Your task to perform on an android device: Open the Play Movies app and select the watchlist tab. Image 0: 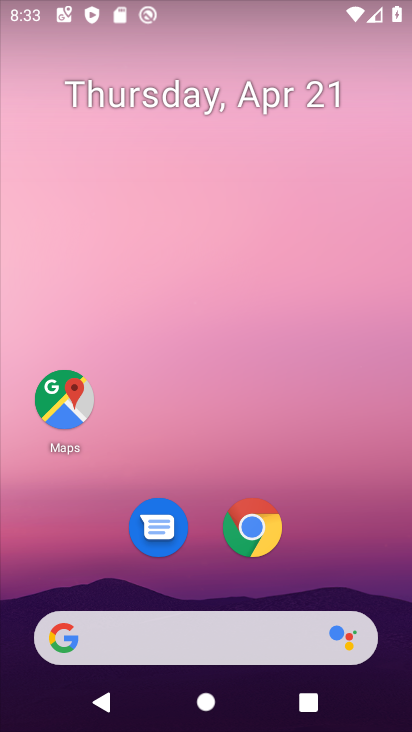
Step 0: drag from (339, 368) to (320, 89)
Your task to perform on an android device: Open the Play Movies app and select the watchlist tab. Image 1: 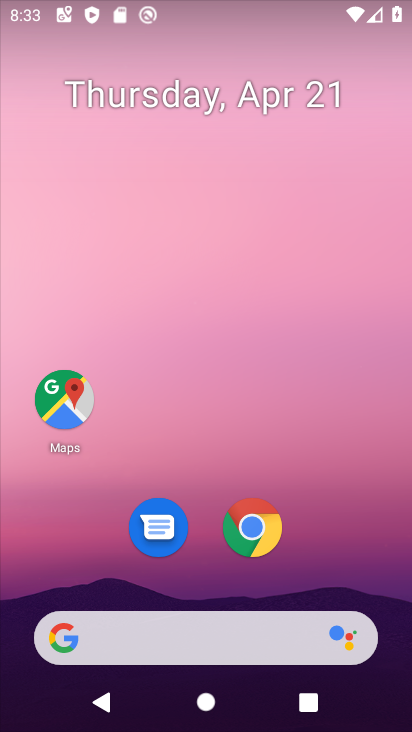
Step 1: drag from (268, 618) to (264, 97)
Your task to perform on an android device: Open the Play Movies app and select the watchlist tab. Image 2: 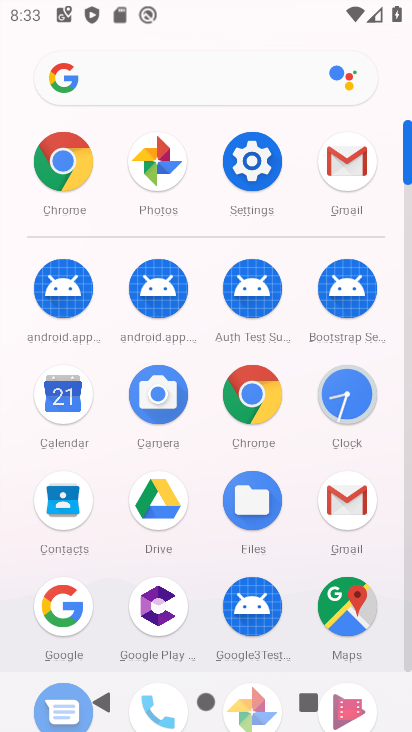
Step 2: drag from (306, 543) to (304, 302)
Your task to perform on an android device: Open the Play Movies app and select the watchlist tab. Image 3: 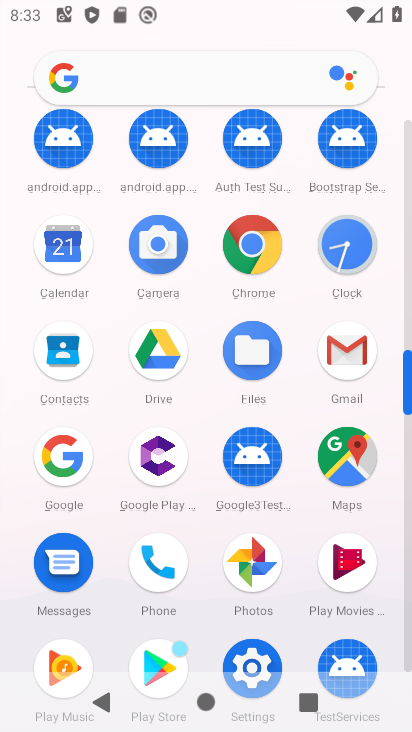
Step 3: drag from (270, 552) to (281, 277)
Your task to perform on an android device: Open the Play Movies app and select the watchlist tab. Image 4: 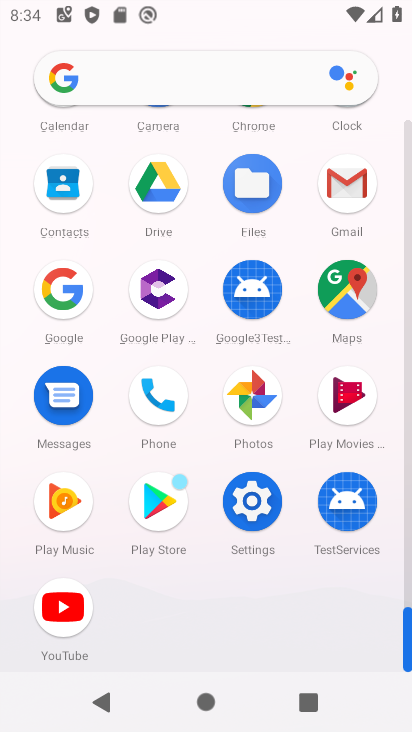
Step 4: click (339, 398)
Your task to perform on an android device: Open the Play Movies app and select the watchlist tab. Image 5: 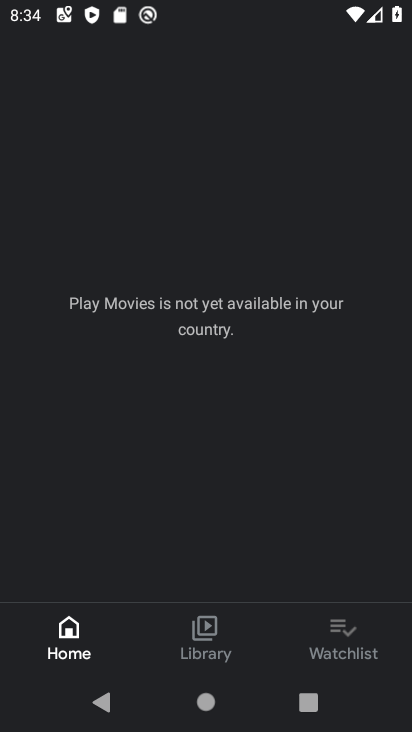
Step 5: click (345, 640)
Your task to perform on an android device: Open the Play Movies app and select the watchlist tab. Image 6: 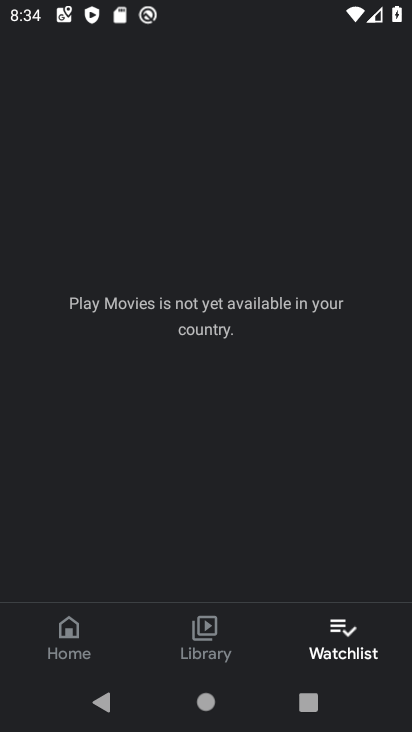
Step 6: task complete